Your task to perform on an android device: open chrome and create a bookmark for the current page Image 0: 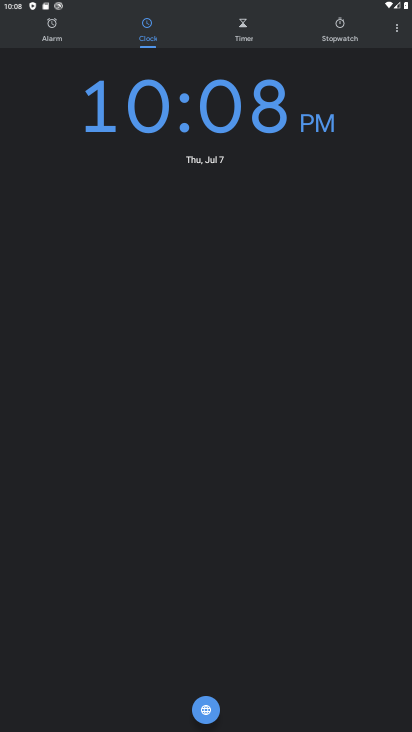
Step 0: press home button
Your task to perform on an android device: open chrome and create a bookmark for the current page Image 1: 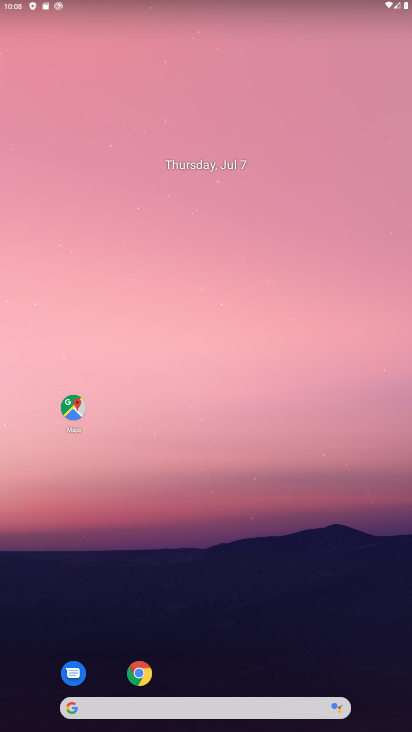
Step 1: drag from (262, 665) to (156, 10)
Your task to perform on an android device: open chrome and create a bookmark for the current page Image 2: 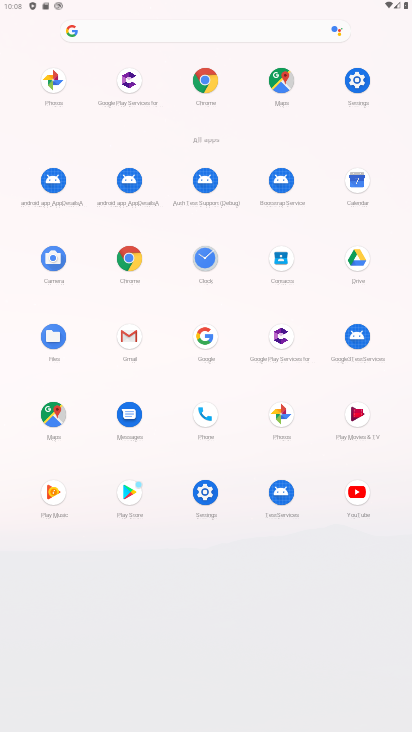
Step 2: click (128, 268)
Your task to perform on an android device: open chrome and create a bookmark for the current page Image 3: 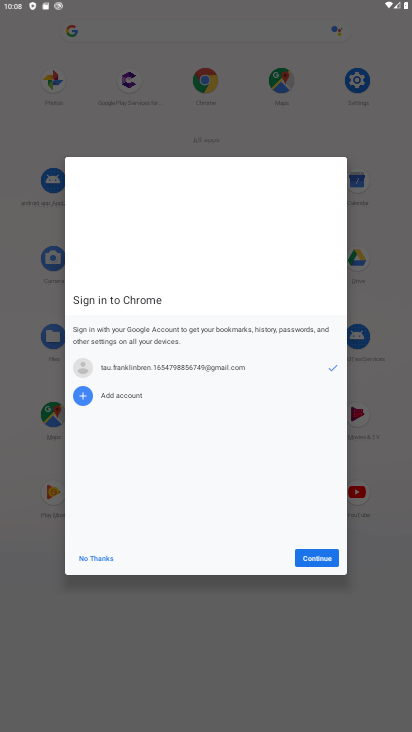
Step 3: click (328, 560)
Your task to perform on an android device: open chrome and create a bookmark for the current page Image 4: 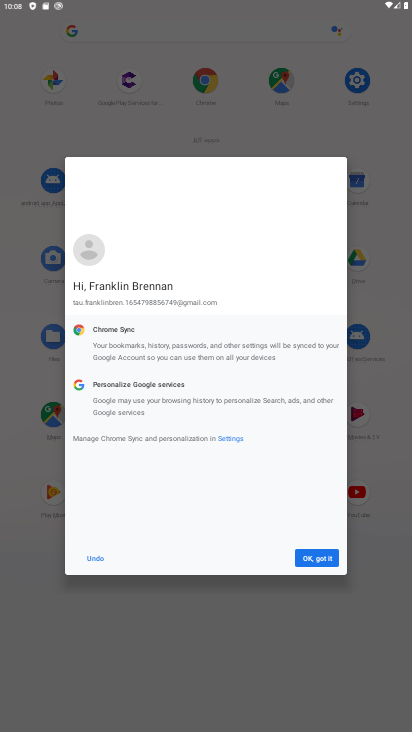
Step 4: click (326, 551)
Your task to perform on an android device: open chrome and create a bookmark for the current page Image 5: 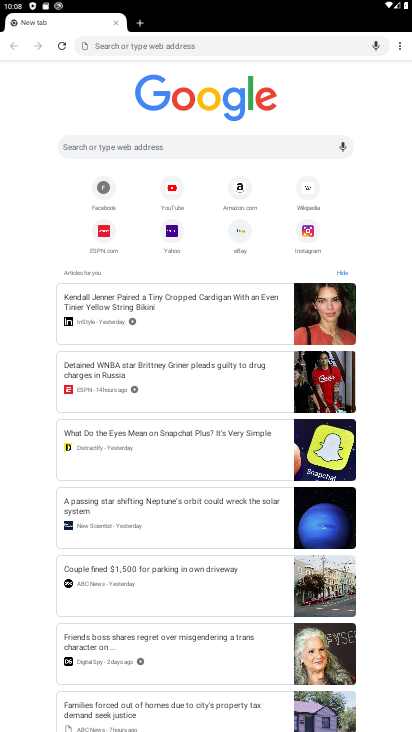
Step 5: click (398, 46)
Your task to perform on an android device: open chrome and create a bookmark for the current page Image 6: 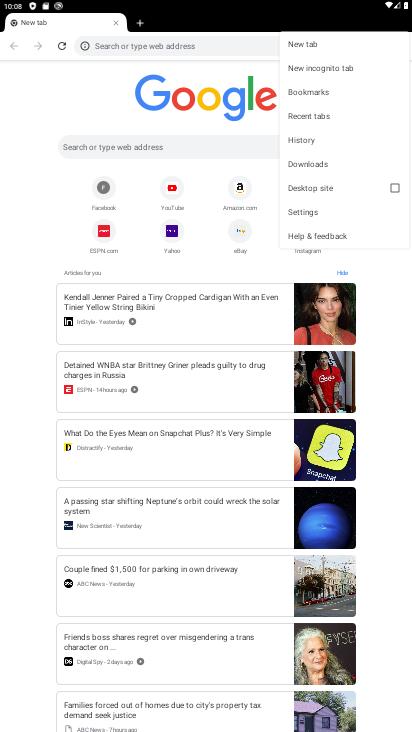
Step 6: click (191, 87)
Your task to perform on an android device: open chrome and create a bookmark for the current page Image 7: 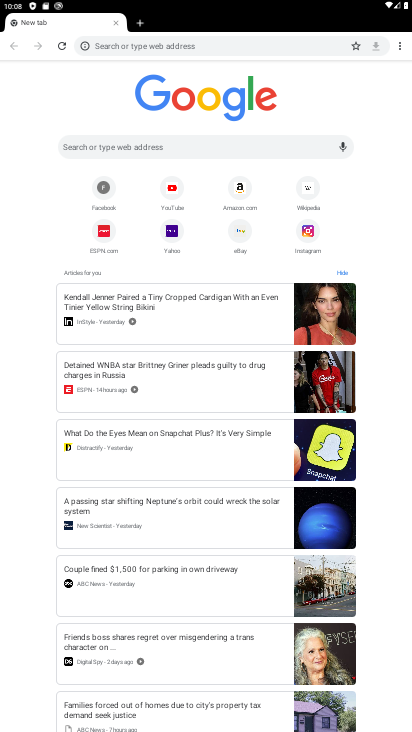
Step 7: click (353, 46)
Your task to perform on an android device: open chrome and create a bookmark for the current page Image 8: 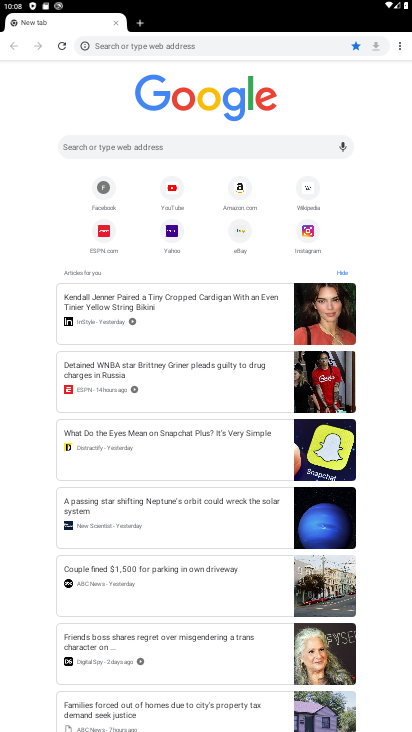
Step 8: task complete